Your task to perform on an android device: Go to notification settings Image 0: 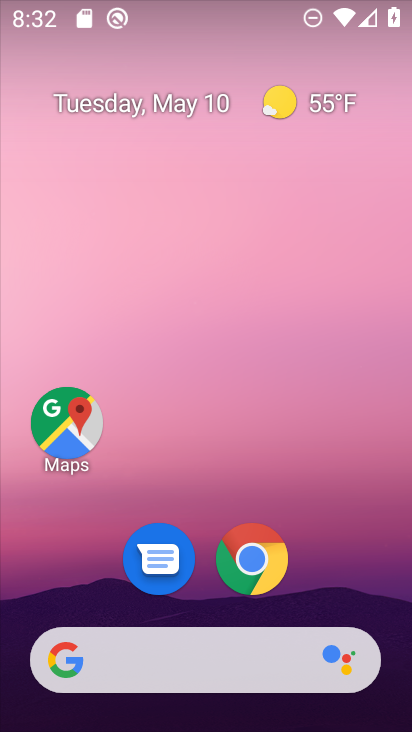
Step 0: drag from (194, 727) to (164, 64)
Your task to perform on an android device: Go to notification settings Image 1: 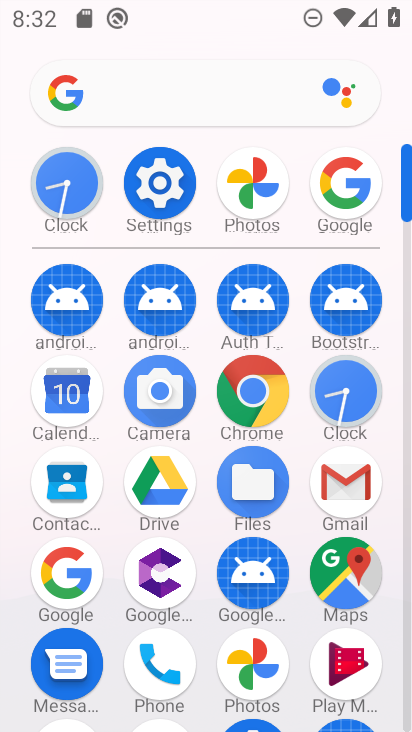
Step 1: click (153, 185)
Your task to perform on an android device: Go to notification settings Image 2: 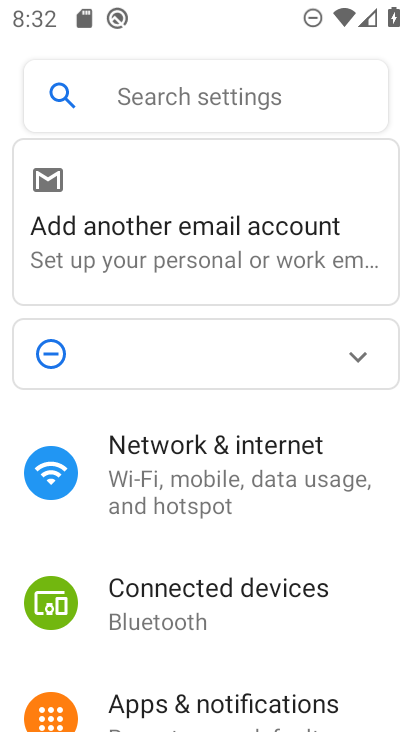
Step 2: drag from (160, 667) to (165, 499)
Your task to perform on an android device: Go to notification settings Image 3: 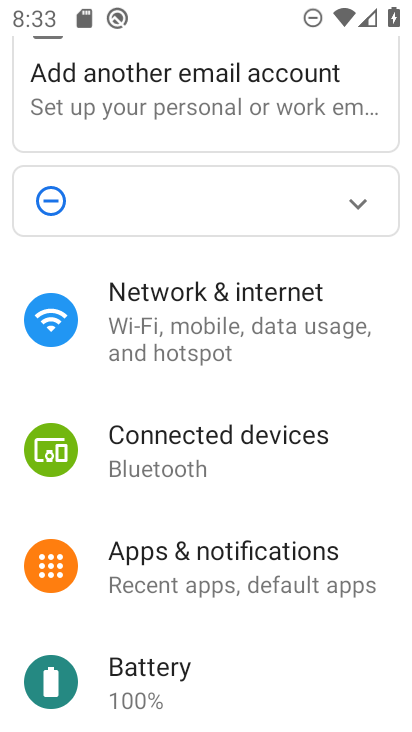
Step 3: click (225, 571)
Your task to perform on an android device: Go to notification settings Image 4: 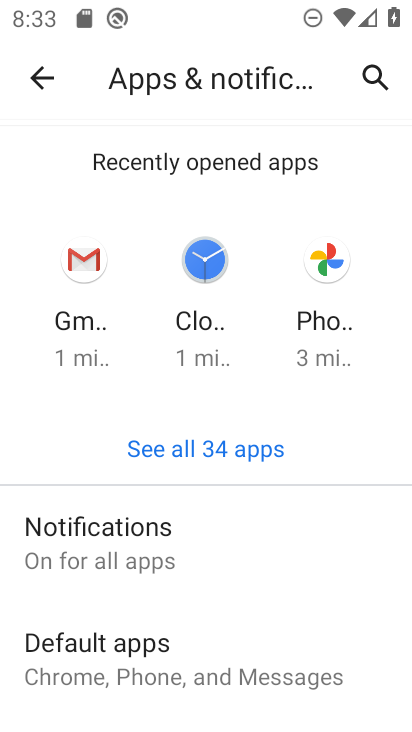
Step 4: click (129, 544)
Your task to perform on an android device: Go to notification settings Image 5: 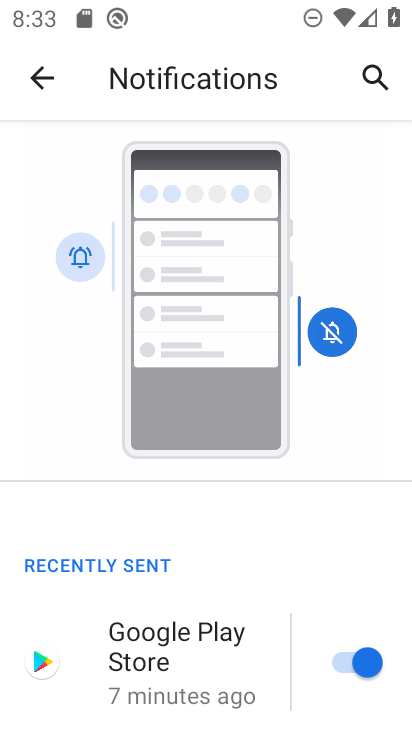
Step 5: task complete